Your task to perform on an android device: Open the map Image 0: 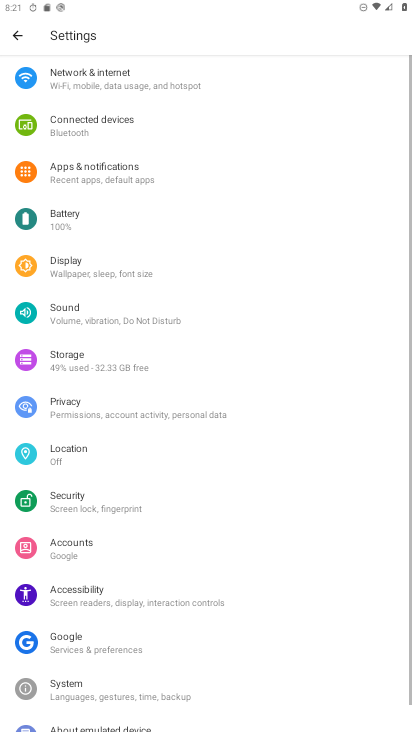
Step 0: drag from (368, 676) to (349, 198)
Your task to perform on an android device: Open the map Image 1: 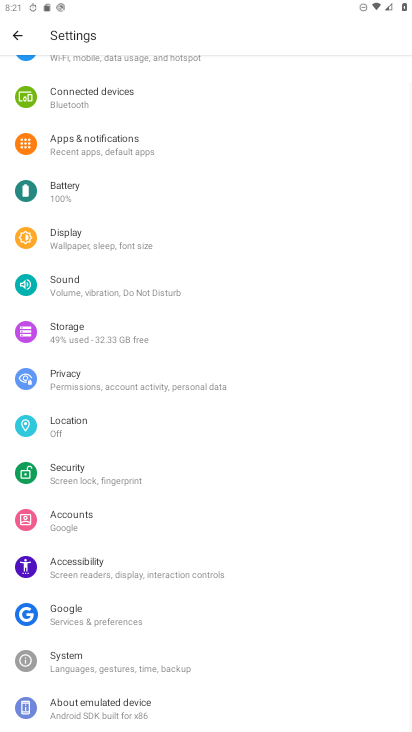
Step 1: press home button
Your task to perform on an android device: Open the map Image 2: 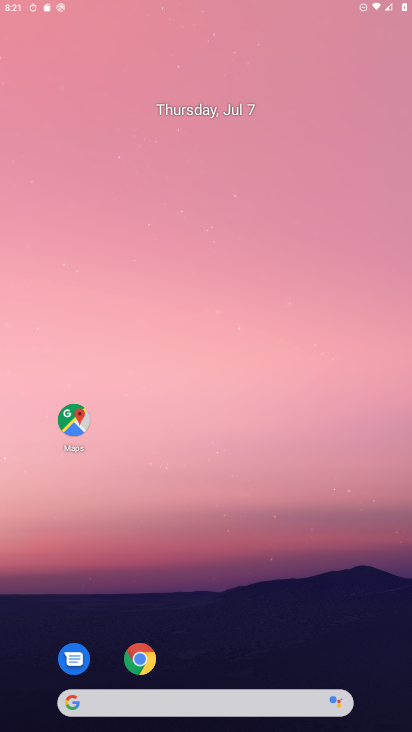
Step 2: drag from (348, 693) to (242, 87)
Your task to perform on an android device: Open the map Image 3: 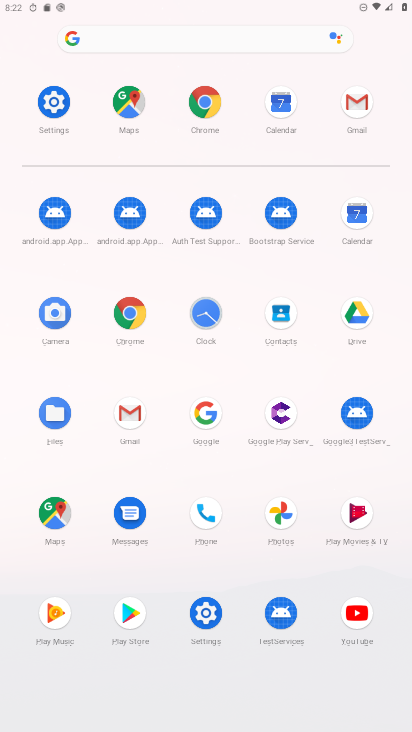
Step 3: click (110, 105)
Your task to perform on an android device: Open the map Image 4: 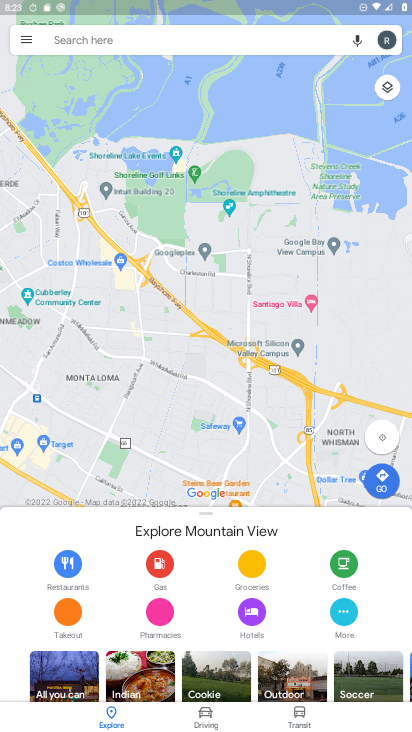
Step 4: task complete